Your task to perform on an android device: Search for vegetarian restaurants on Maps Image 0: 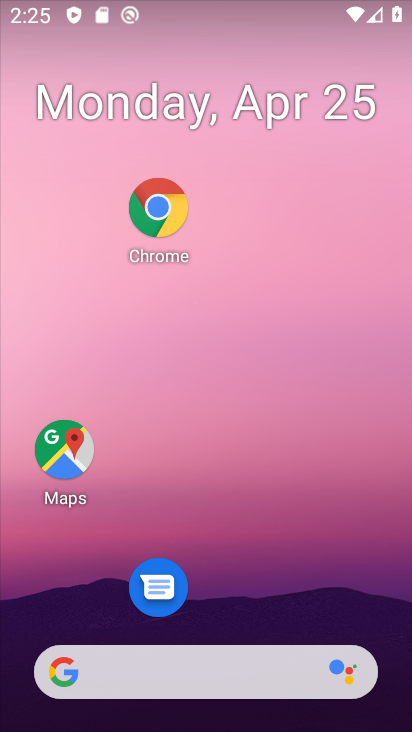
Step 0: drag from (303, 578) to (299, 46)
Your task to perform on an android device: Search for vegetarian restaurants on Maps Image 1: 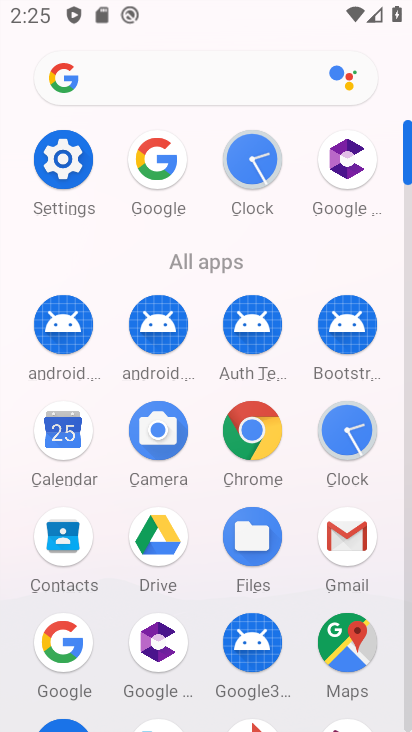
Step 1: click (359, 652)
Your task to perform on an android device: Search for vegetarian restaurants on Maps Image 2: 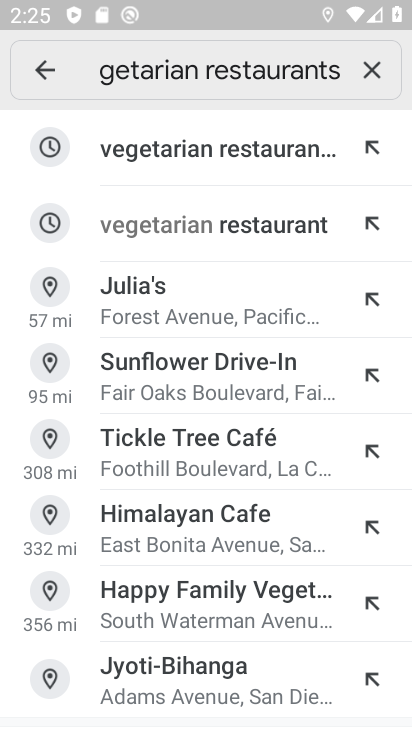
Step 2: task complete